Your task to perform on an android device: install app "ZOOM Cloud Meetings" Image 0: 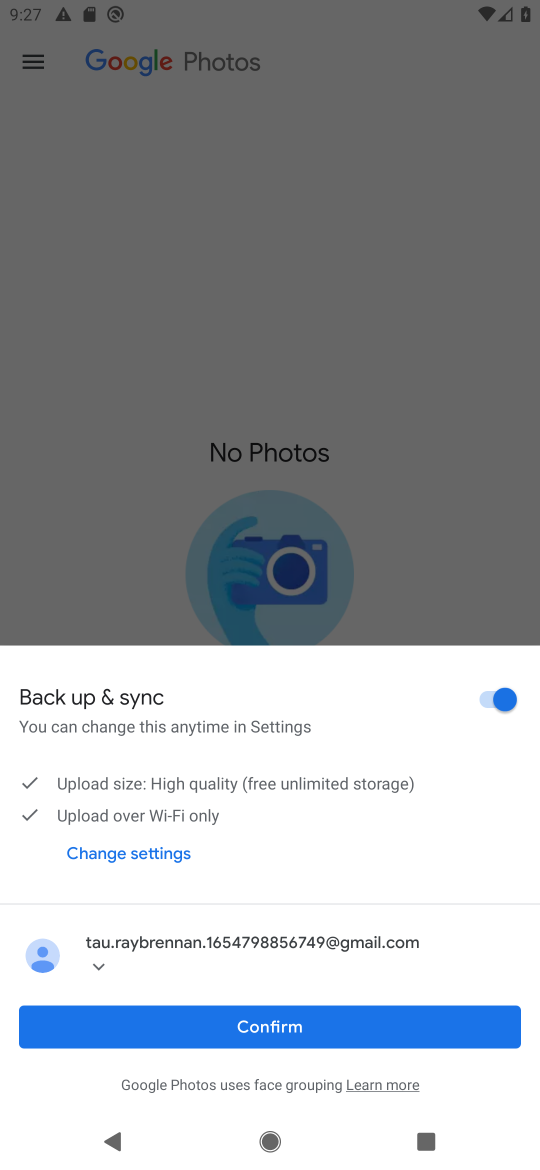
Step 0: press home button
Your task to perform on an android device: install app "ZOOM Cloud Meetings" Image 1: 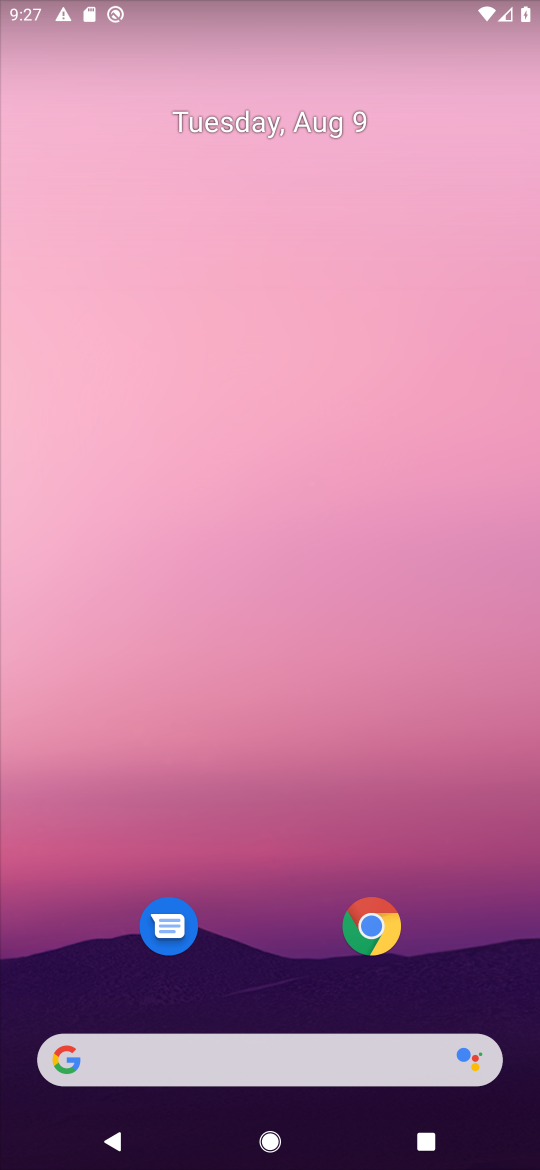
Step 1: drag from (271, 1018) to (308, 214)
Your task to perform on an android device: install app "ZOOM Cloud Meetings" Image 2: 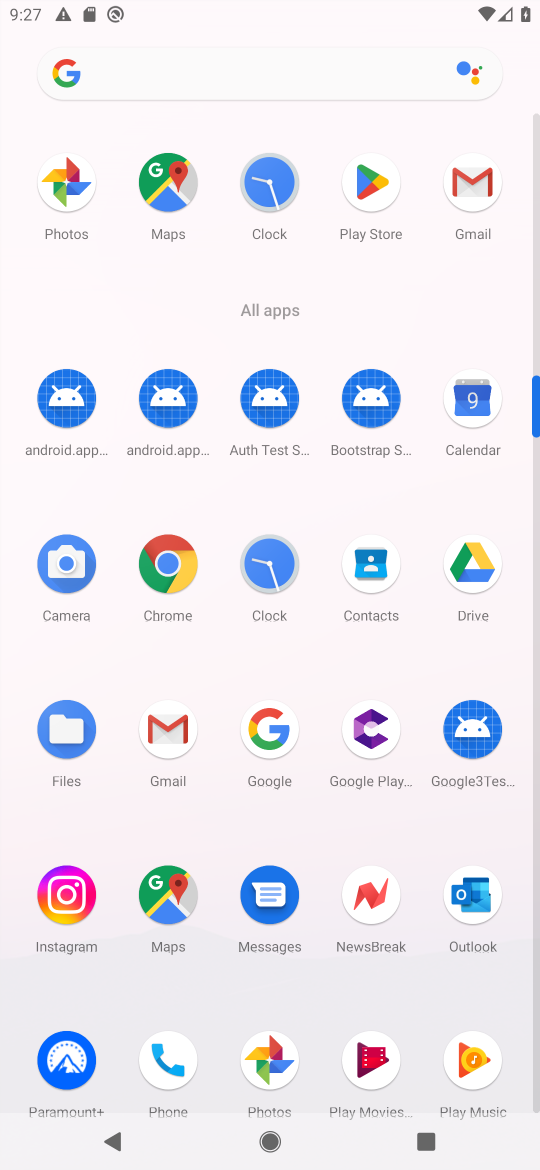
Step 2: click (351, 201)
Your task to perform on an android device: install app "ZOOM Cloud Meetings" Image 3: 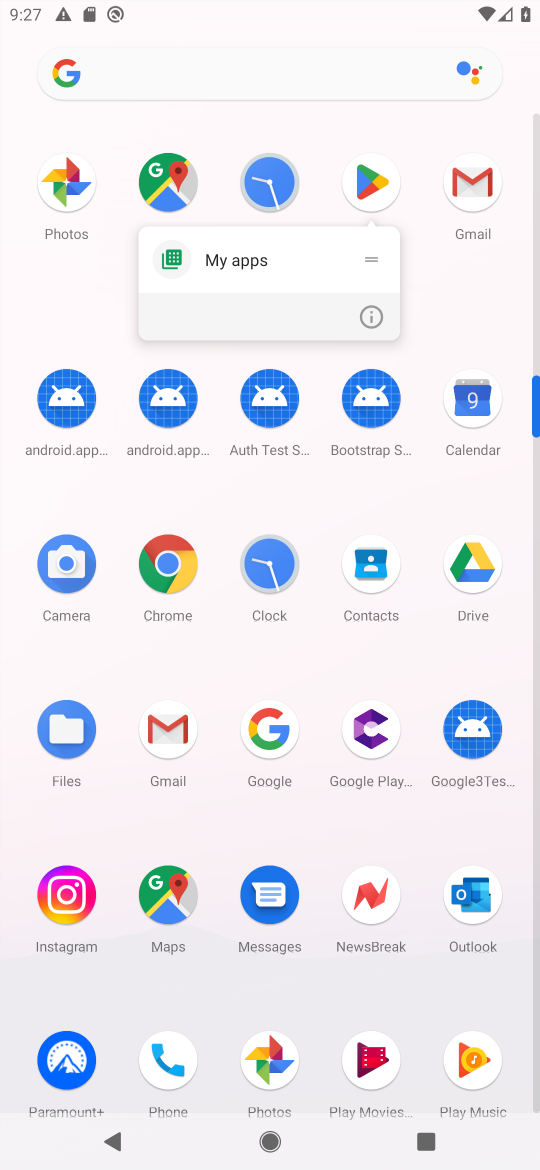
Step 3: click (375, 133)
Your task to perform on an android device: install app "ZOOM Cloud Meetings" Image 4: 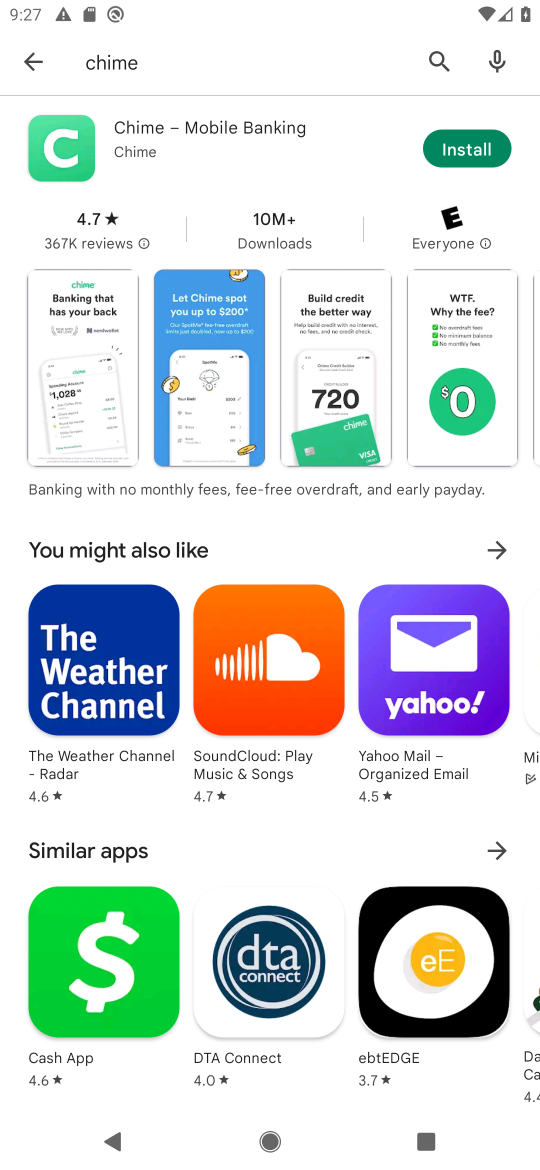
Step 4: click (316, 76)
Your task to perform on an android device: install app "ZOOM Cloud Meetings" Image 5: 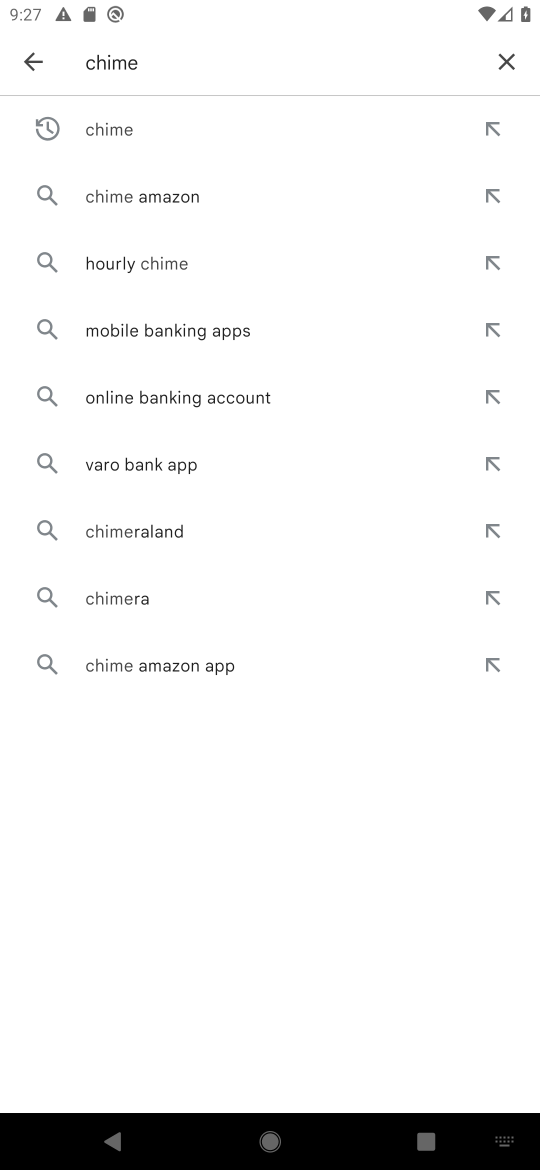
Step 5: click (505, 55)
Your task to perform on an android device: install app "ZOOM Cloud Meetings" Image 6: 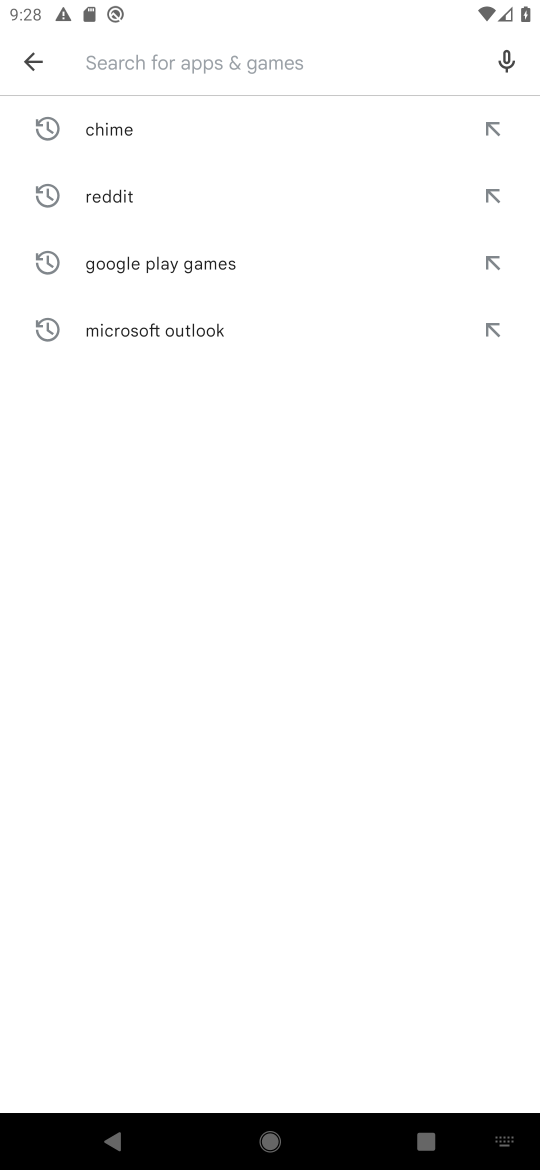
Step 6: type "Zoom cloud meetings"
Your task to perform on an android device: install app "ZOOM Cloud Meetings" Image 7: 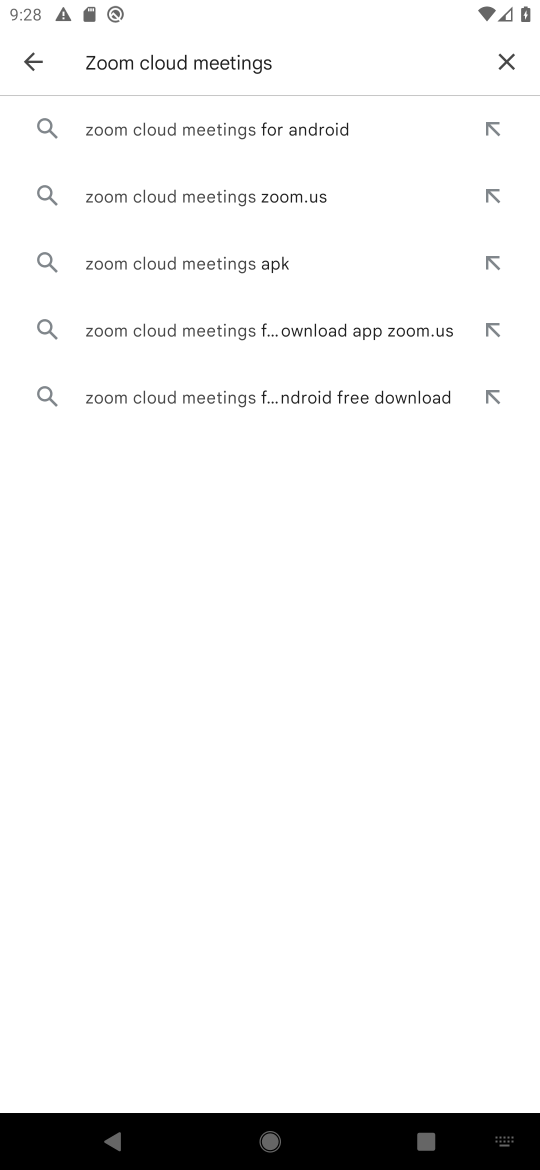
Step 7: click (187, 122)
Your task to perform on an android device: install app "ZOOM Cloud Meetings" Image 8: 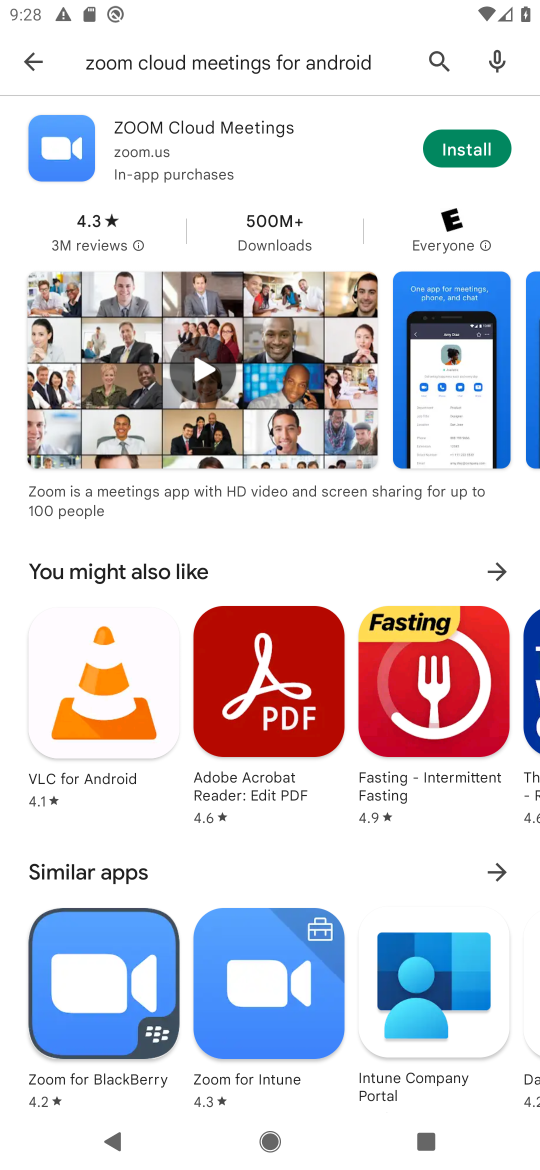
Step 8: click (476, 145)
Your task to perform on an android device: install app "ZOOM Cloud Meetings" Image 9: 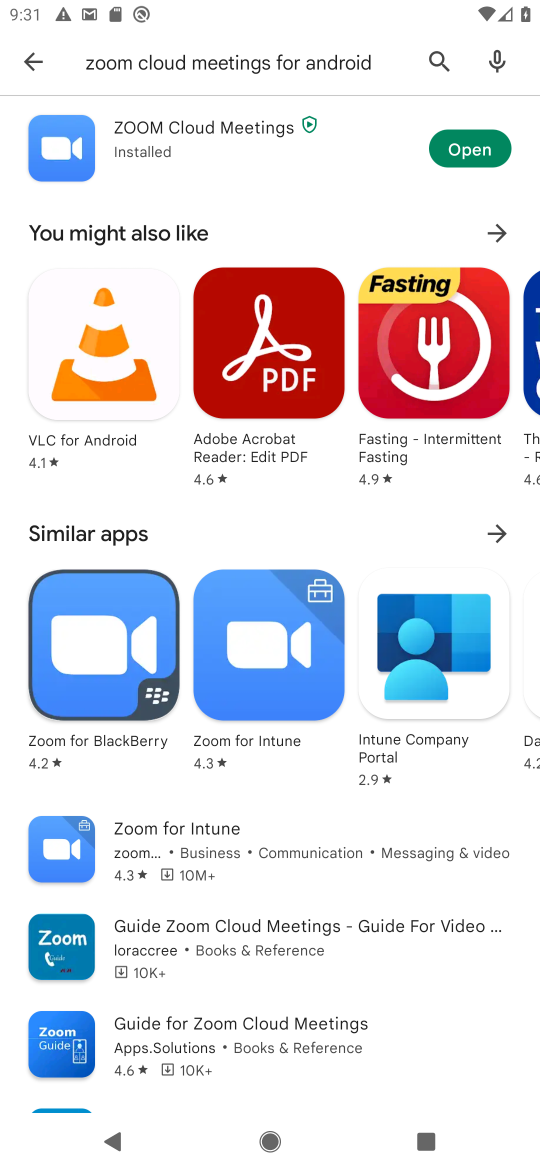
Step 9: task complete